Your task to perform on an android device: Open the calendar and show me this week's events? Image 0: 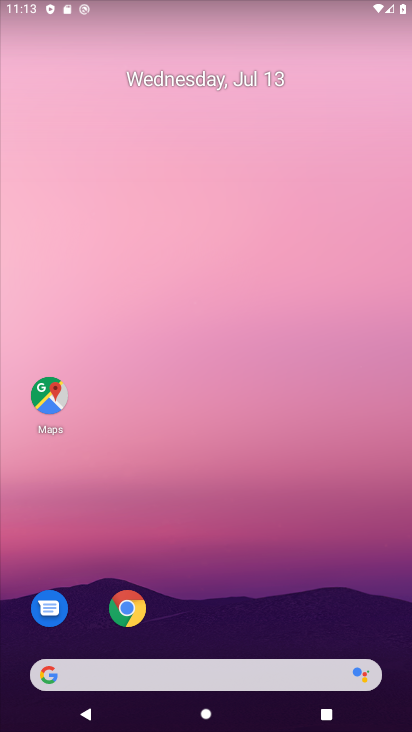
Step 0: drag from (274, 638) to (274, 490)
Your task to perform on an android device: Open the calendar and show me this week's events? Image 1: 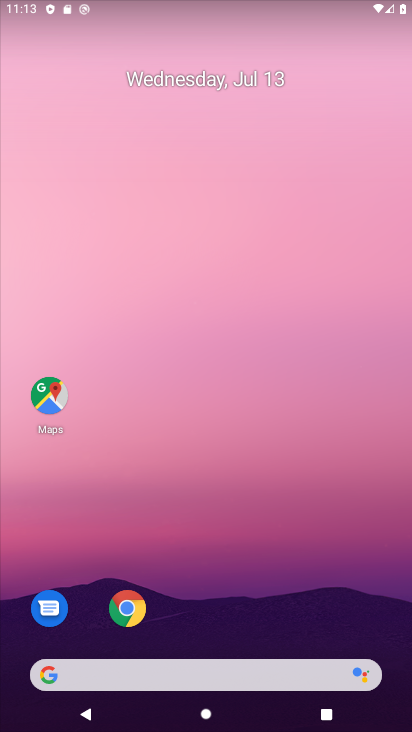
Step 1: drag from (273, 641) to (342, 135)
Your task to perform on an android device: Open the calendar and show me this week's events? Image 2: 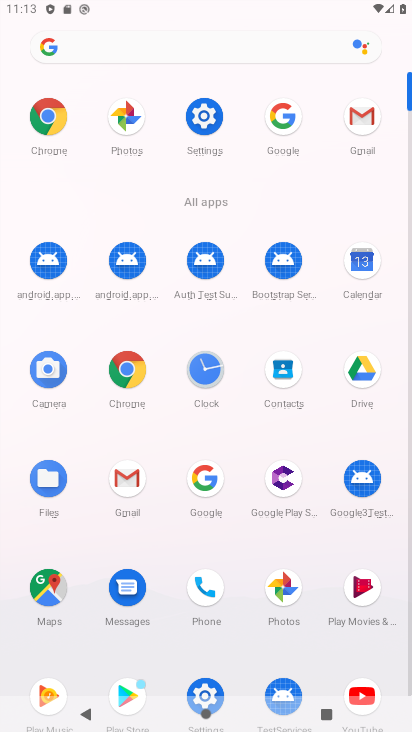
Step 2: click (359, 281)
Your task to perform on an android device: Open the calendar and show me this week's events? Image 3: 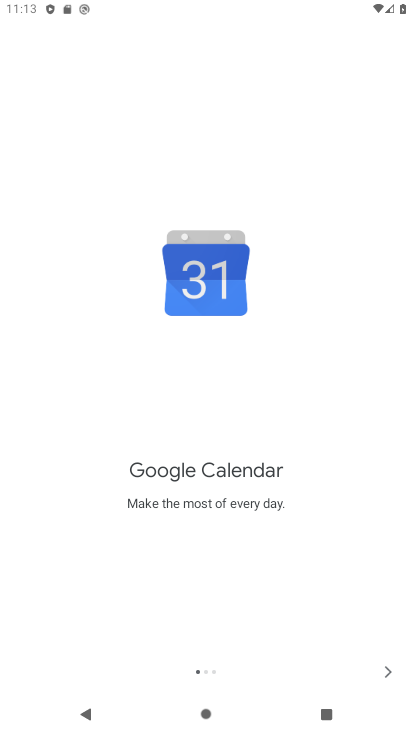
Step 3: click (397, 672)
Your task to perform on an android device: Open the calendar and show me this week's events? Image 4: 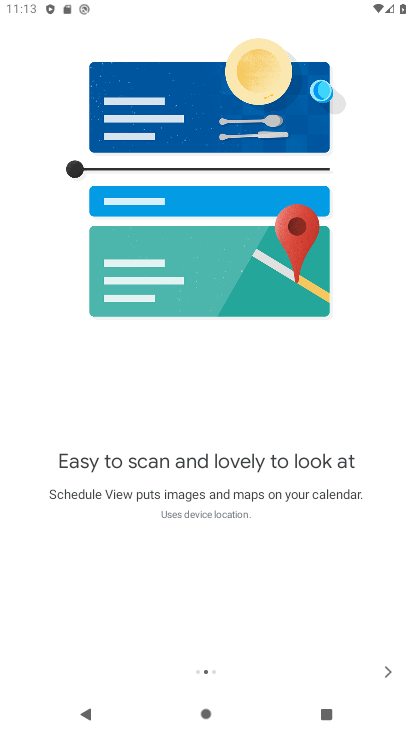
Step 4: click (397, 672)
Your task to perform on an android device: Open the calendar and show me this week's events? Image 5: 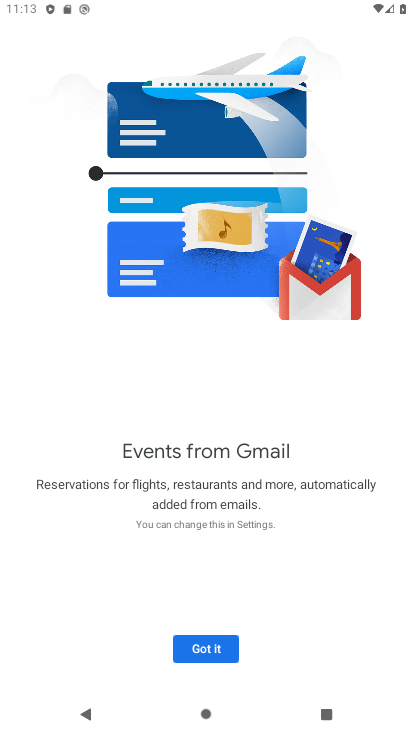
Step 5: click (200, 649)
Your task to perform on an android device: Open the calendar and show me this week's events? Image 6: 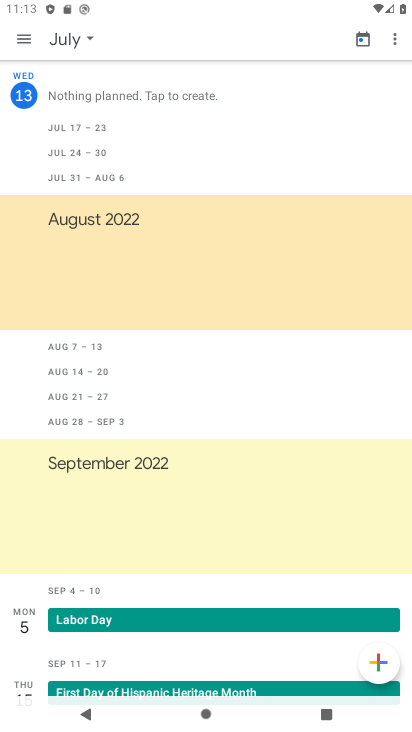
Step 6: click (58, 48)
Your task to perform on an android device: Open the calendar and show me this week's events? Image 7: 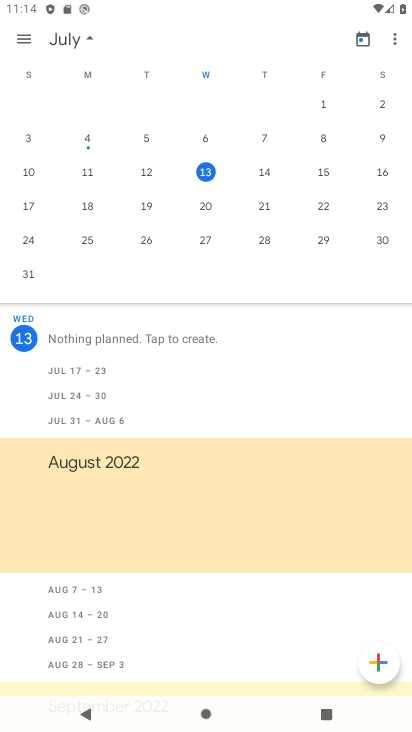
Step 7: click (203, 168)
Your task to perform on an android device: Open the calendar and show me this week's events? Image 8: 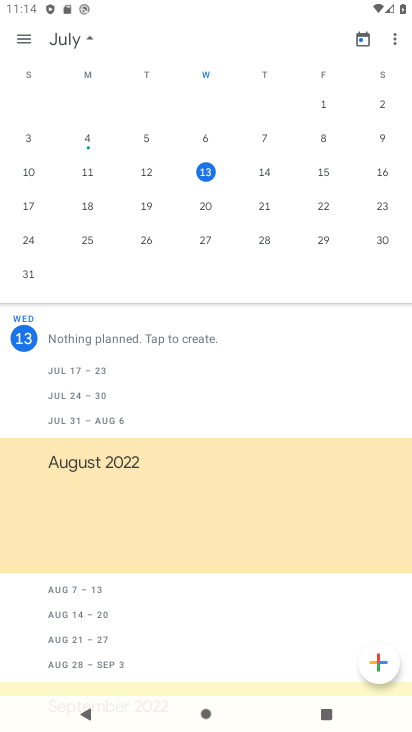
Step 8: click (281, 179)
Your task to perform on an android device: Open the calendar and show me this week's events? Image 9: 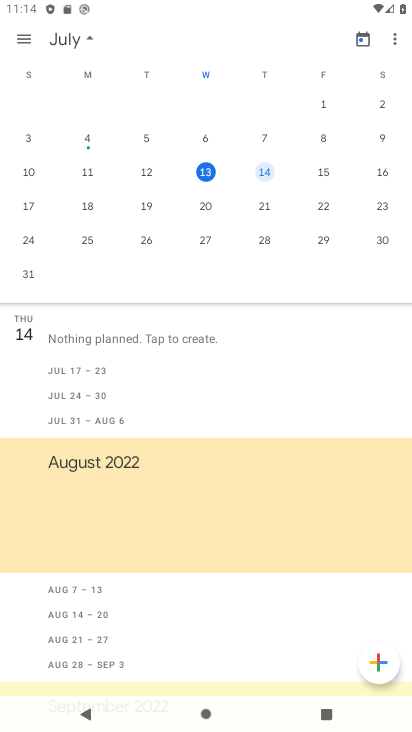
Step 9: click (355, 174)
Your task to perform on an android device: Open the calendar and show me this week's events? Image 10: 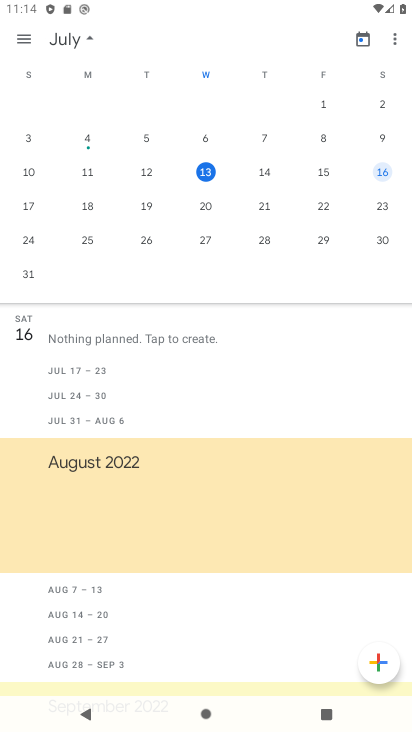
Step 10: click (314, 174)
Your task to perform on an android device: Open the calendar and show me this week's events? Image 11: 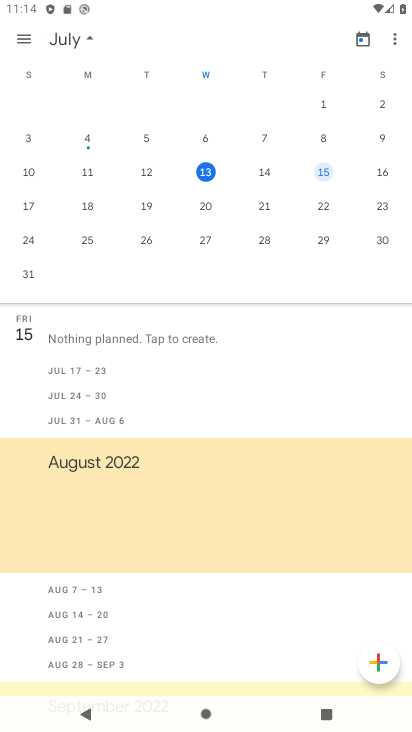
Step 11: task complete